Your task to perform on an android device: allow cookies in the chrome app Image 0: 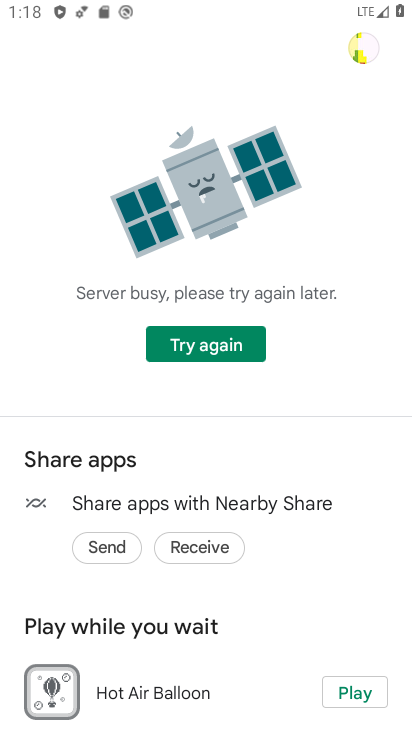
Step 0: press home button
Your task to perform on an android device: allow cookies in the chrome app Image 1: 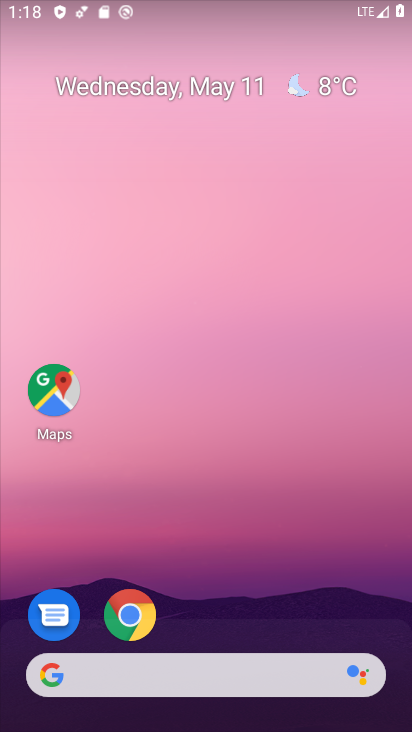
Step 1: click (130, 610)
Your task to perform on an android device: allow cookies in the chrome app Image 2: 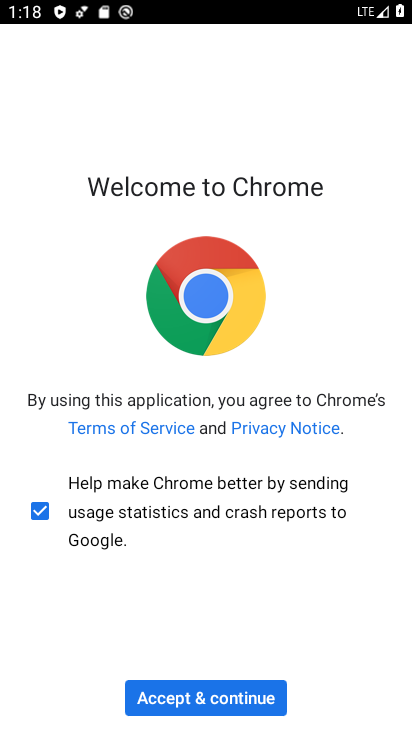
Step 2: click (178, 700)
Your task to perform on an android device: allow cookies in the chrome app Image 3: 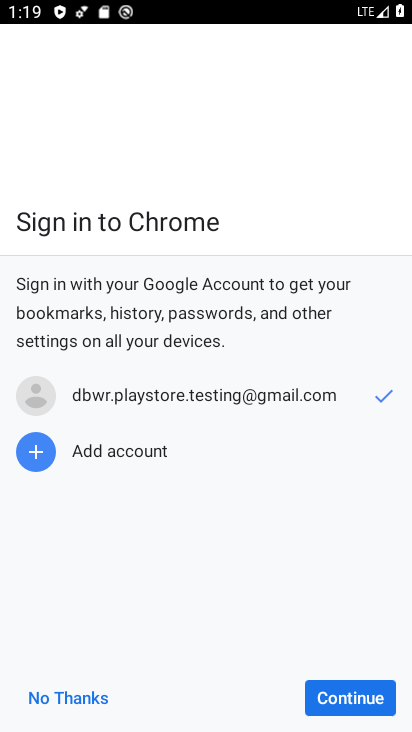
Step 3: click (349, 708)
Your task to perform on an android device: allow cookies in the chrome app Image 4: 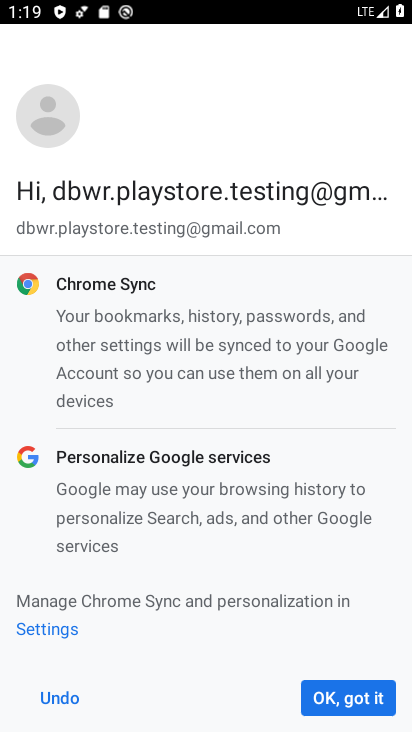
Step 4: click (346, 691)
Your task to perform on an android device: allow cookies in the chrome app Image 5: 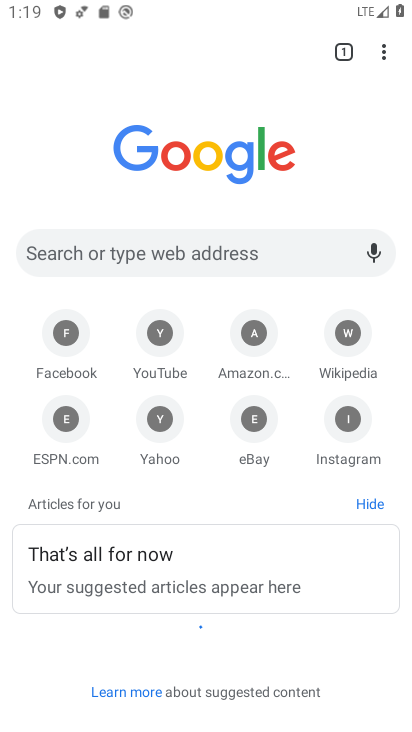
Step 5: drag from (386, 51) to (201, 451)
Your task to perform on an android device: allow cookies in the chrome app Image 6: 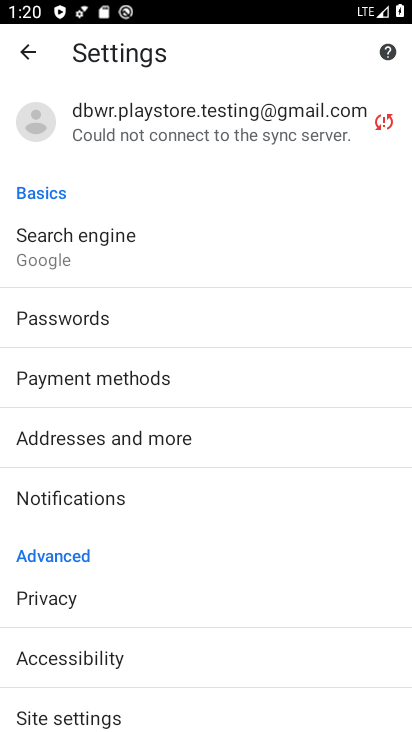
Step 6: drag from (243, 598) to (340, 201)
Your task to perform on an android device: allow cookies in the chrome app Image 7: 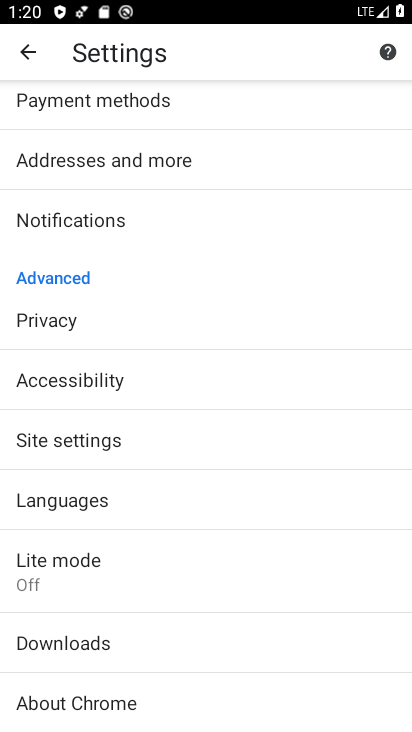
Step 7: click (131, 434)
Your task to perform on an android device: allow cookies in the chrome app Image 8: 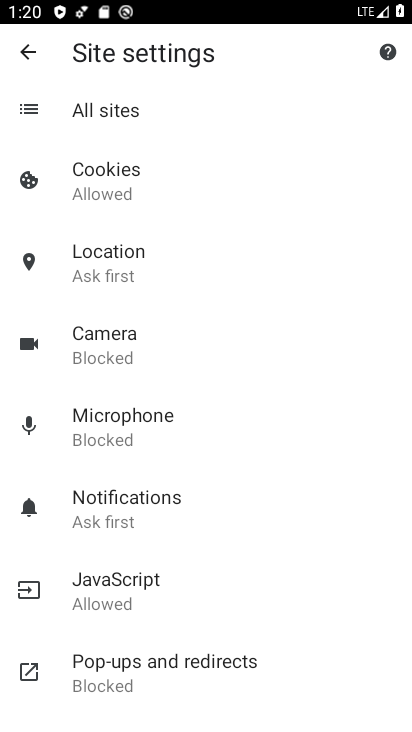
Step 8: click (118, 178)
Your task to perform on an android device: allow cookies in the chrome app Image 9: 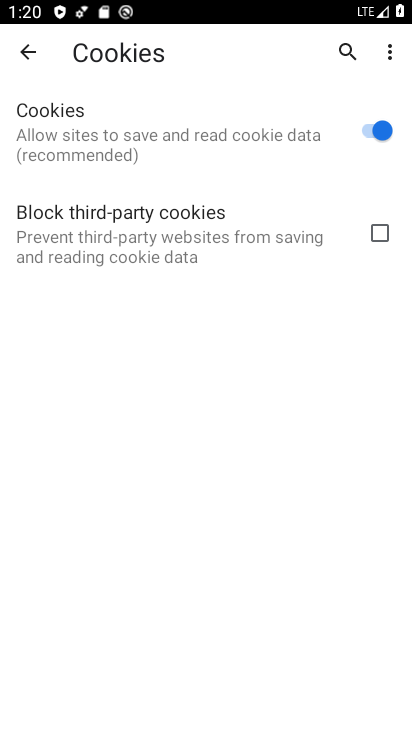
Step 9: task complete